Your task to perform on an android device: Open calendar and show me the first week of next month Image 0: 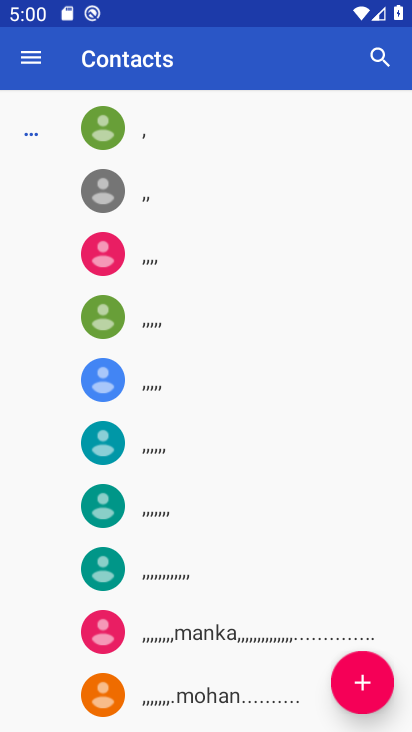
Step 0: click (319, 582)
Your task to perform on an android device: Open calendar and show me the first week of next month Image 1: 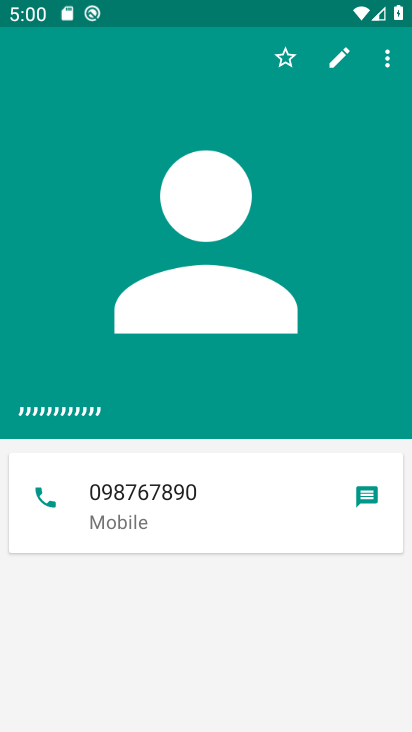
Step 1: press home button
Your task to perform on an android device: Open calendar and show me the first week of next month Image 2: 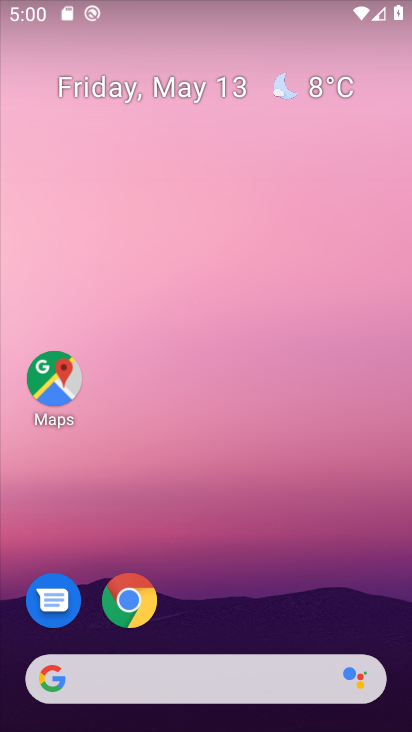
Step 2: drag from (304, 587) to (218, 143)
Your task to perform on an android device: Open calendar and show me the first week of next month Image 3: 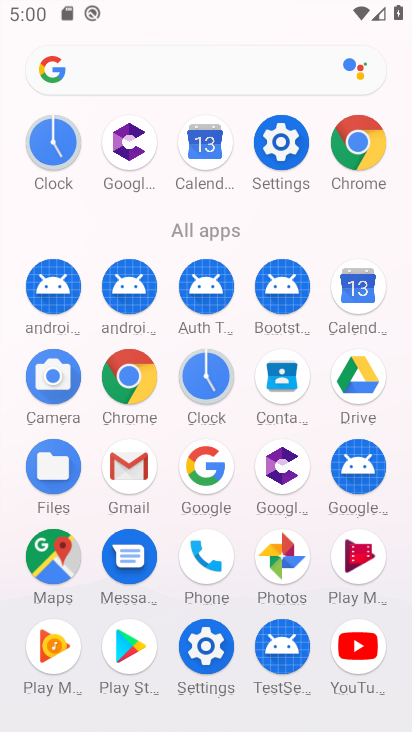
Step 3: click (276, 189)
Your task to perform on an android device: Open calendar and show me the first week of next month Image 4: 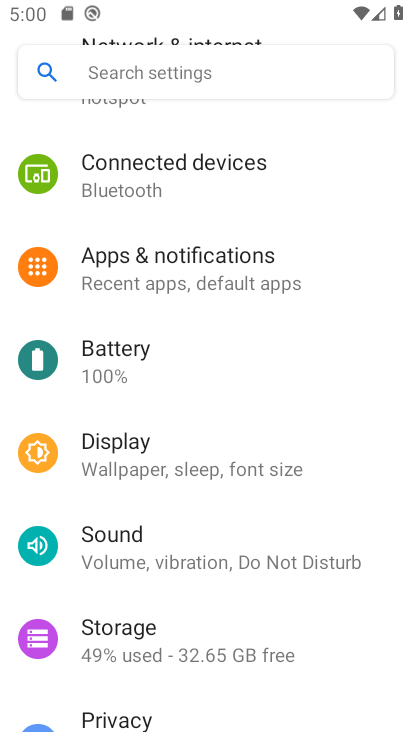
Step 4: press home button
Your task to perform on an android device: Open calendar and show me the first week of next month Image 5: 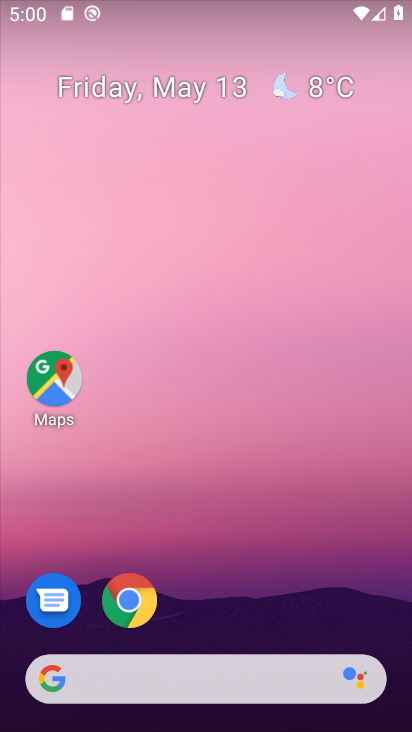
Step 5: drag from (273, 593) to (206, 307)
Your task to perform on an android device: Open calendar and show me the first week of next month Image 6: 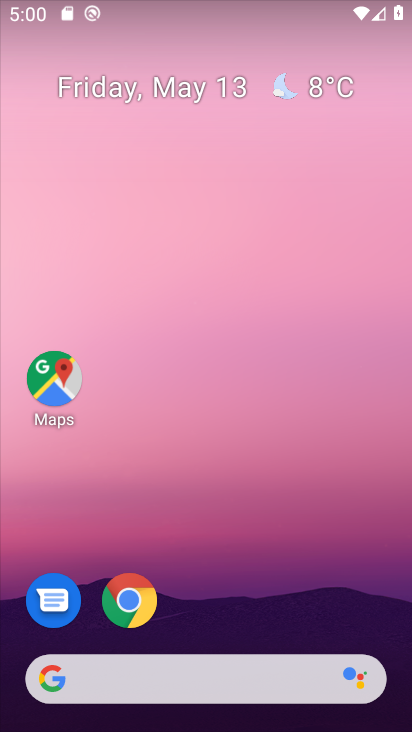
Step 6: drag from (290, 617) to (245, 375)
Your task to perform on an android device: Open calendar and show me the first week of next month Image 7: 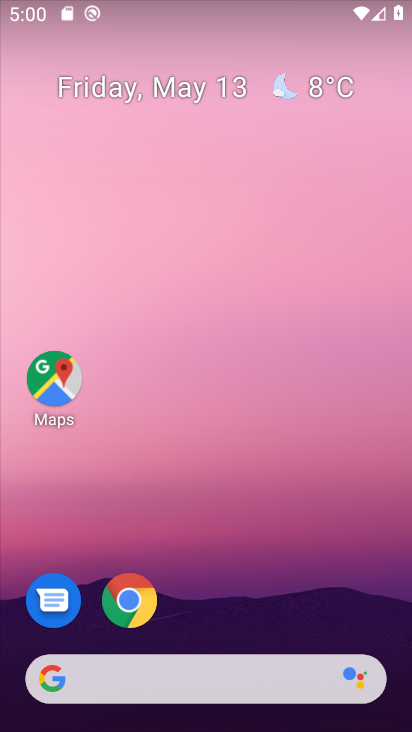
Step 7: drag from (223, 612) to (186, 293)
Your task to perform on an android device: Open calendar and show me the first week of next month Image 8: 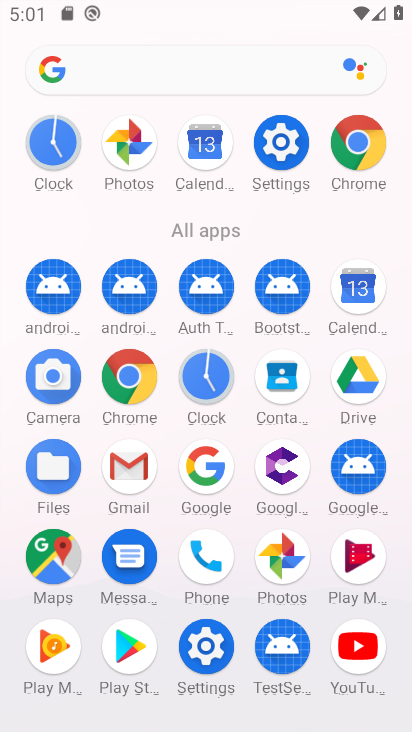
Step 8: click (340, 310)
Your task to perform on an android device: Open calendar and show me the first week of next month Image 9: 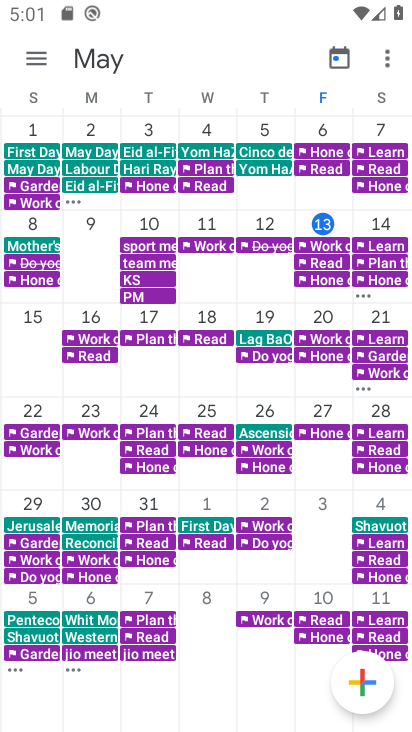
Step 9: click (135, 67)
Your task to perform on an android device: Open calendar and show me the first week of next month Image 10: 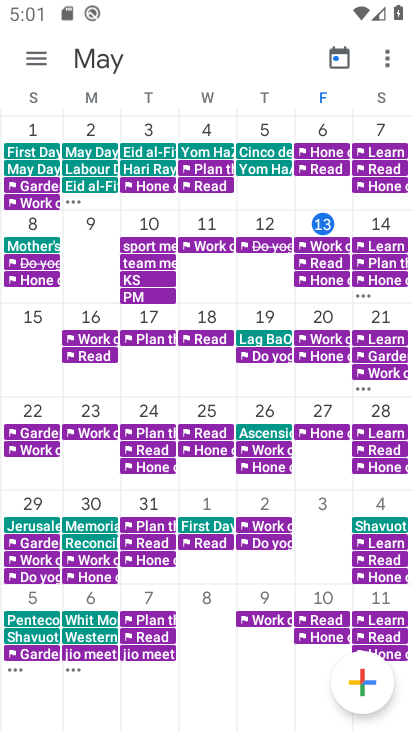
Step 10: click (96, 49)
Your task to perform on an android device: Open calendar and show me the first week of next month Image 11: 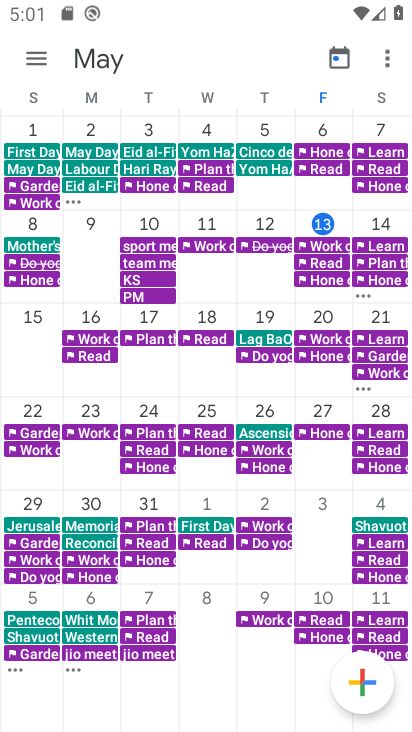
Step 11: click (35, 56)
Your task to perform on an android device: Open calendar and show me the first week of next month Image 12: 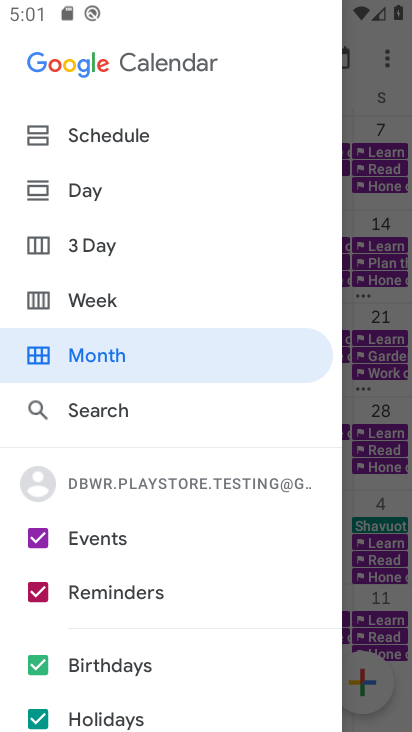
Step 12: click (64, 108)
Your task to perform on an android device: Open calendar and show me the first week of next month Image 13: 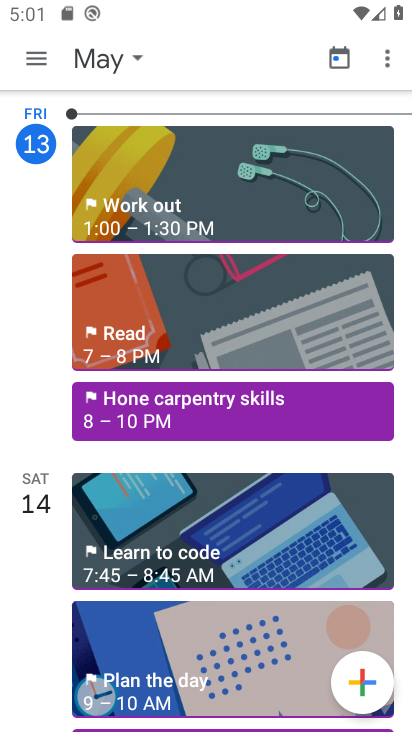
Step 13: click (137, 69)
Your task to perform on an android device: Open calendar and show me the first week of next month Image 14: 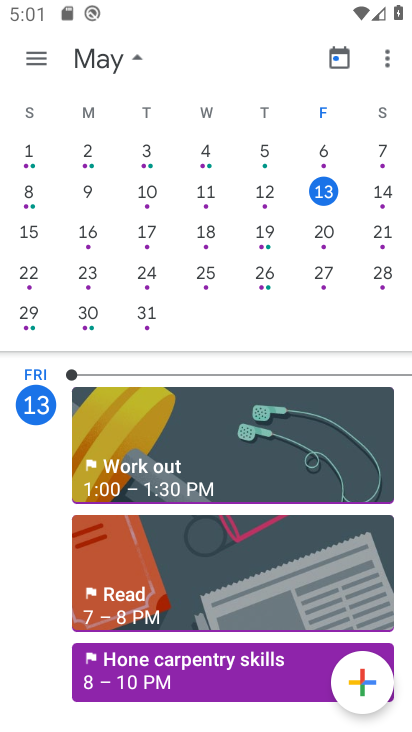
Step 14: drag from (384, 293) to (68, 226)
Your task to perform on an android device: Open calendar and show me the first week of next month Image 15: 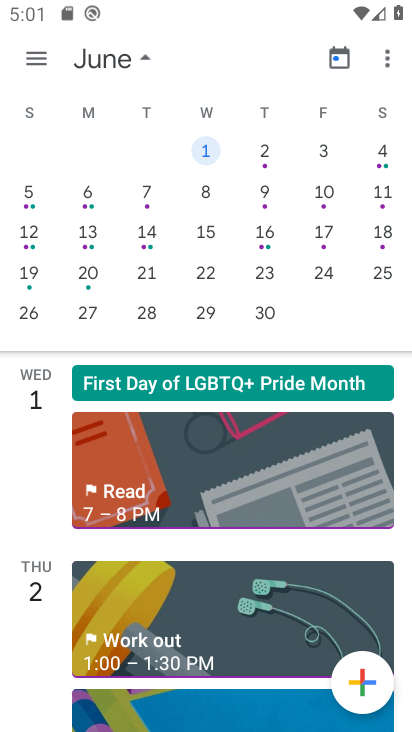
Step 15: click (99, 194)
Your task to perform on an android device: Open calendar and show me the first week of next month Image 16: 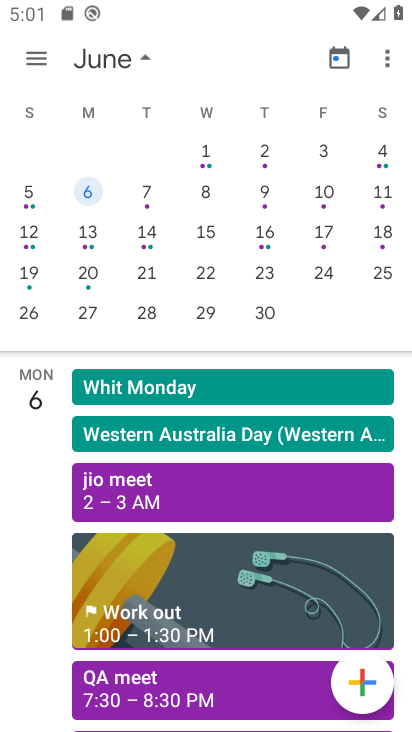
Step 16: task complete